Your task to perform on an android device: Open Chrome and go to settings Image 0: 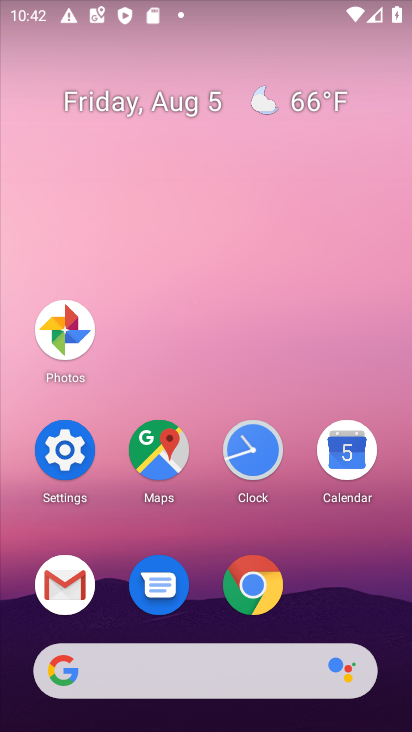
Step 0: click (254, 582)
Your task to perform on an android device: Open Chrome and go to settings Image 1: 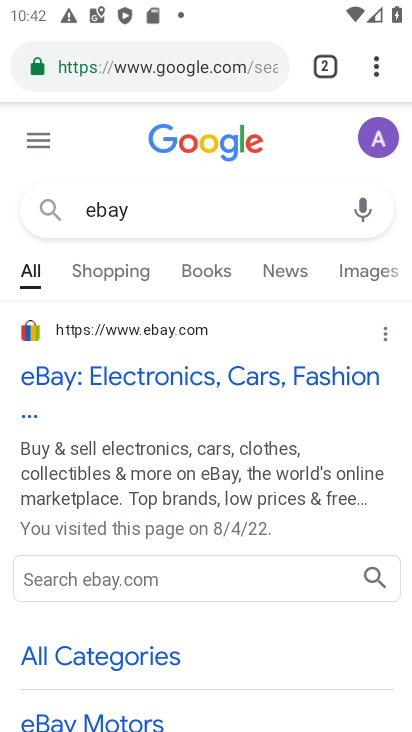
Step 1: click (379, 59)
Your task to perform on an android device: Open Chrome and go to settings Image 2: 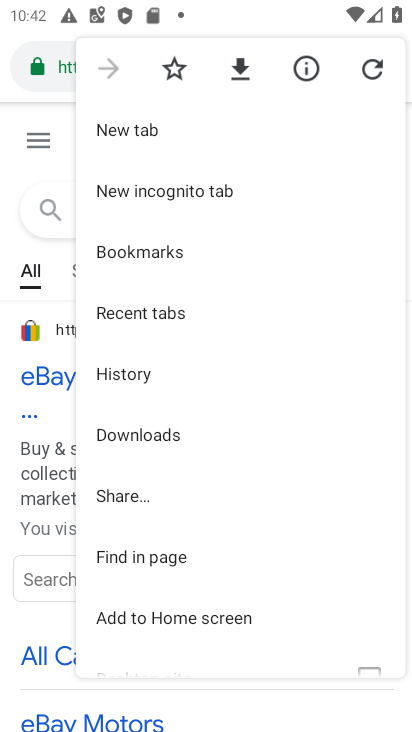
Step 2: drag from (232, 520) to (234, 112)
Your task to perform on an android device: Open Chrome and go to settings Image 3: 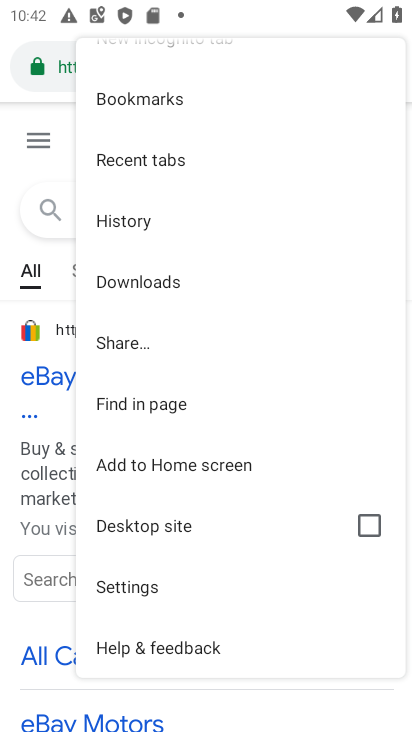
Step 3: click (126, 584)
Your task to perform on an android device: Open Chrome and go to settings Image 4: 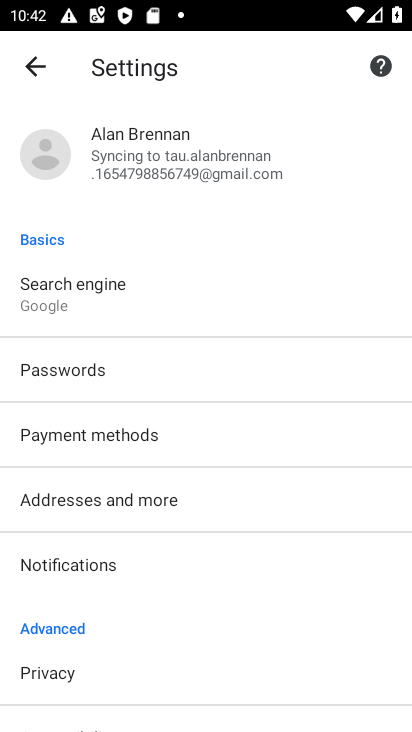
Step 4: task complete